Your task to perform on an android device: visit the assistant section in the google photos Image 0: 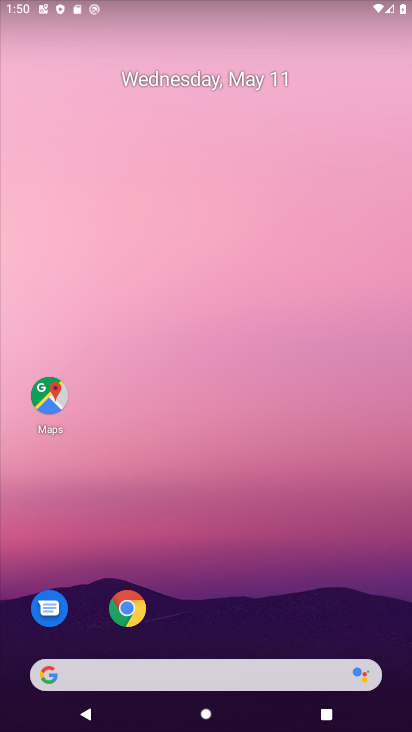
Step 0: drag from (221, 359) to (240, 161)
Your task to perform on an android device: visit the assistant section in the google photos Image 1: 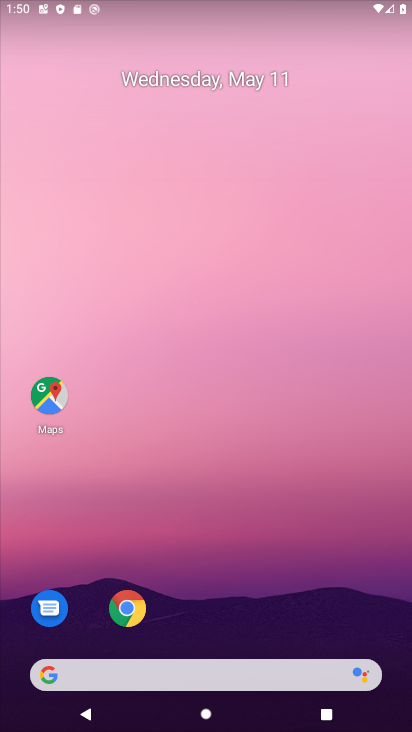
Step 1: drag from (250, 366) to (258, 208)
Your task to perform on an android device: visit the assistant section in the google photos Image 2: 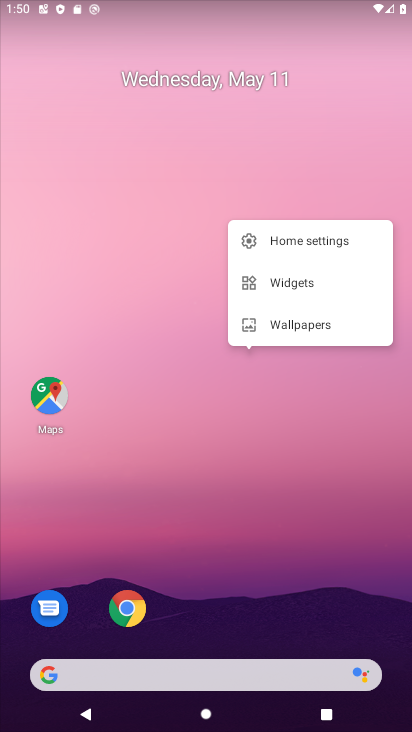
Step 2: click (229, 509)
Your task to perform on an android device: visit the assistant section in the google photos Image 3: 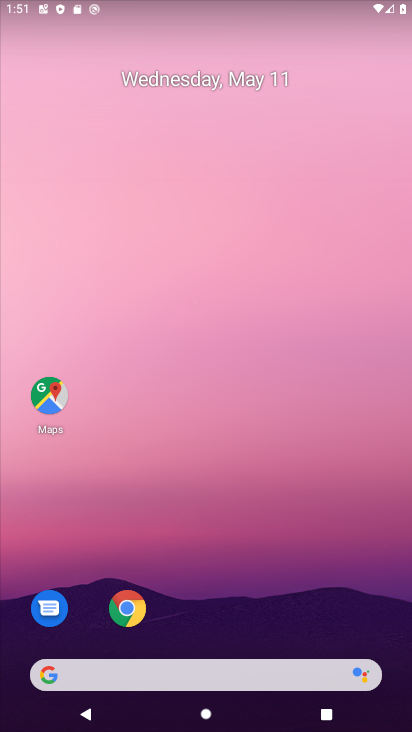
Step 3: drag from (212, 636) to (226, 95)
Your task to perform on an android device: visit the assistant section in the google photos Image 4: 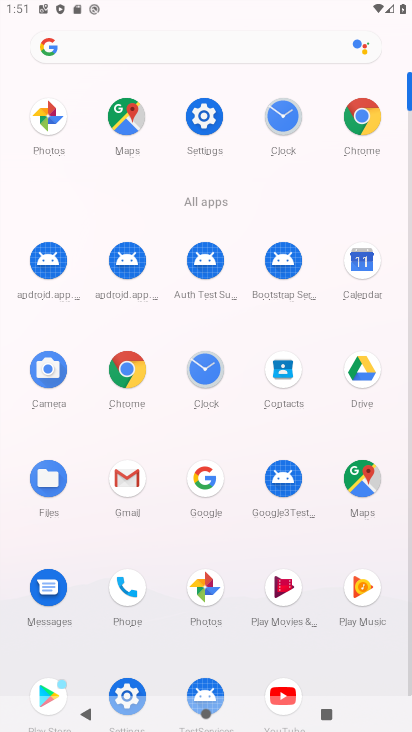
Step 4: click (47, 104)
Your task to perform on an android device: visit the assistant section in the google photos Image 5: 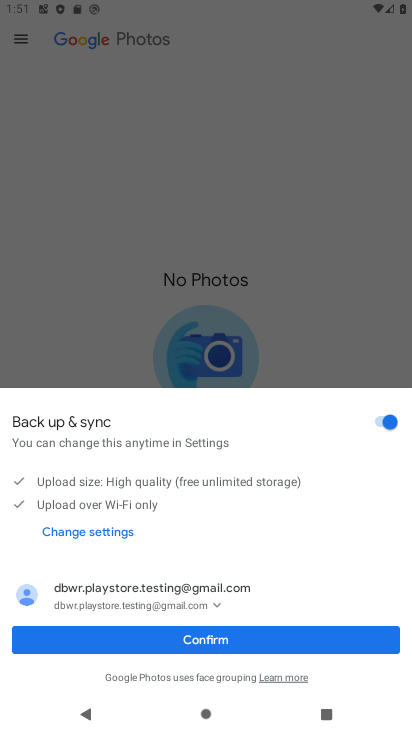
Step 5: click (195, 634)
Your task to perform on an android device: visit the assistant section in the google photos Image 6: 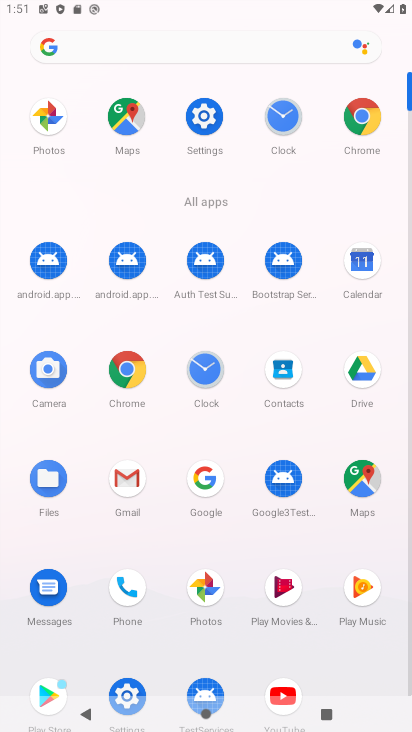
Step 6: click (203, 582)
Your task to perform on an android device: visit the assistant section in the google photos Image 7: 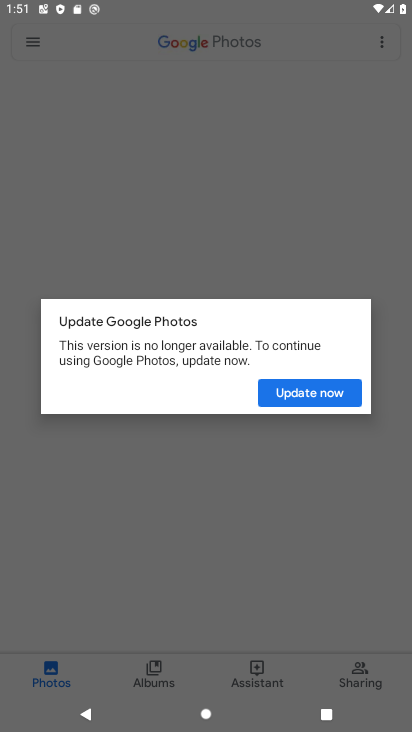
Step 7: click (304, 388)
Your task to perform on an android device: visit the assistant section in the google photos Image 8: 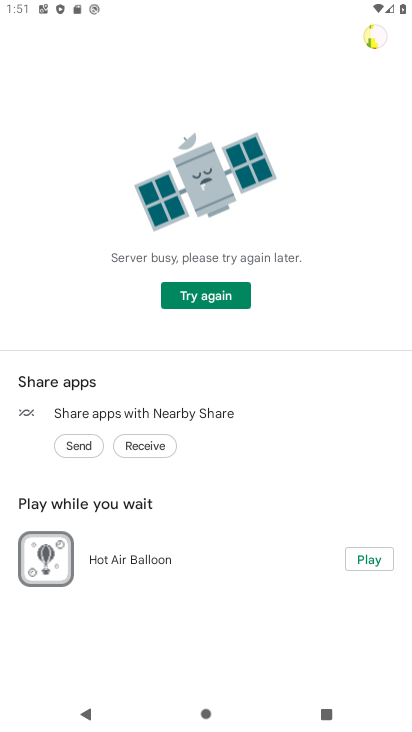
Step 8: click (218, 302)
Your task to perform on an android device: visit the assistant section in the google photos Image 9: 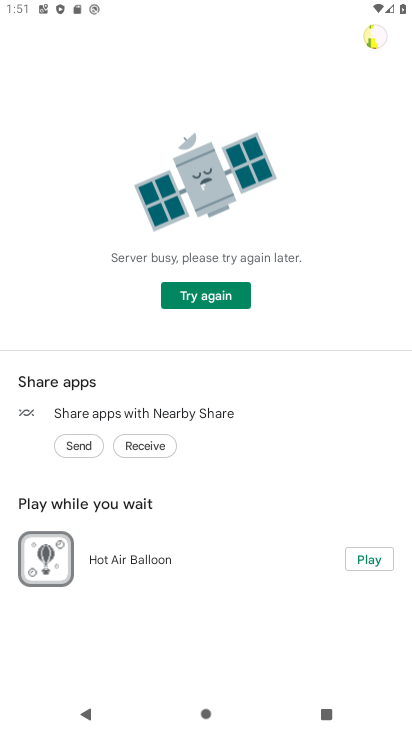
Step 9: click (194, 290)
Your task to perform on an android device: visit the assistant section in the google photos Image 10: 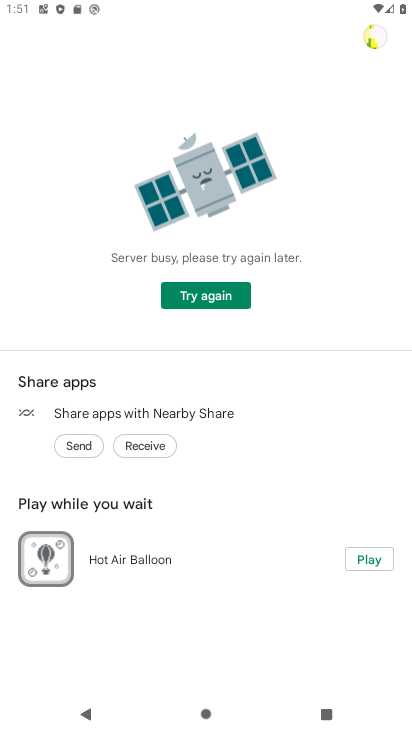
Step 10: task complete